Your task to perform on an android device: Open the Play Movies app and select the watchlist tab. Image 0: 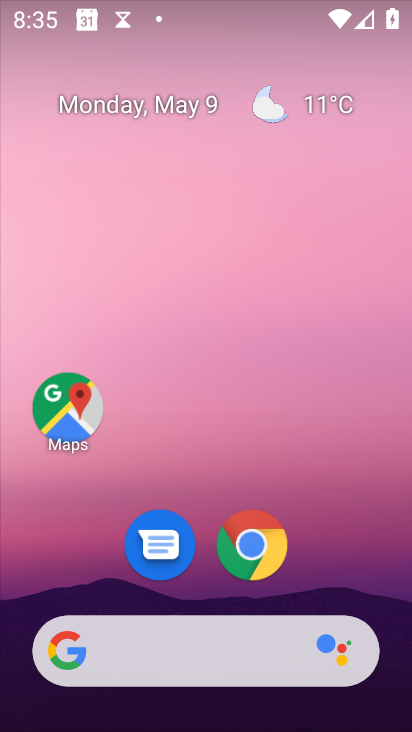
Step 0: drag from (205, 603) to (205, 32)
Your task to perform on an android device: Open the Play Movies app and select the watchlist tab. Image 1: 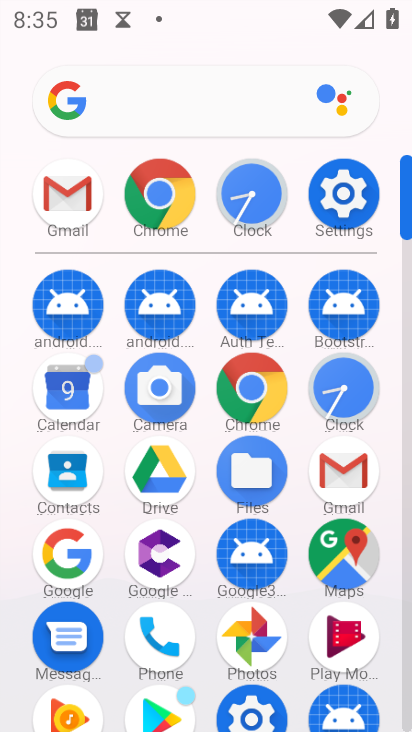
Step 1: drag from (206, 678) to (209, 316)
Your task to perform on an android device: Open the Play Movies app and select the watchlist tab. Image 2: 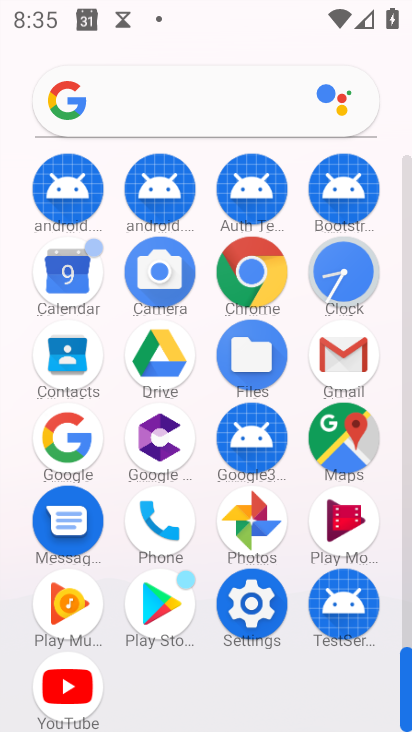
Step 2: click (340, 523)
Your task to perform on an android device: Open the Play Movies app and select the watchlist tab. Image 3: 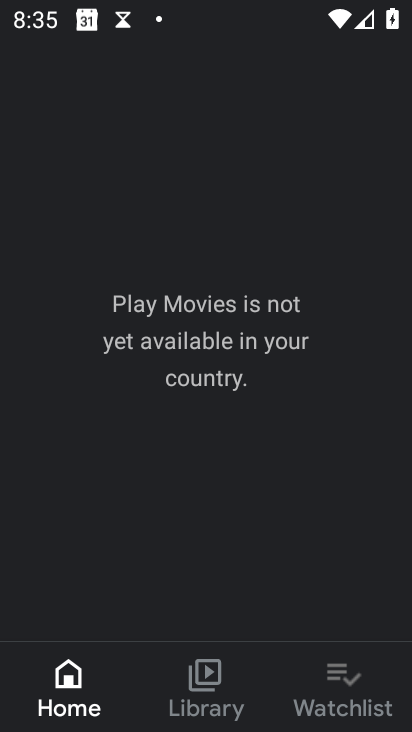
Step 3: click (352, 696)
Your task to perform on an android device: Open the Play Movies app and select the watchlist tab. Image 4: 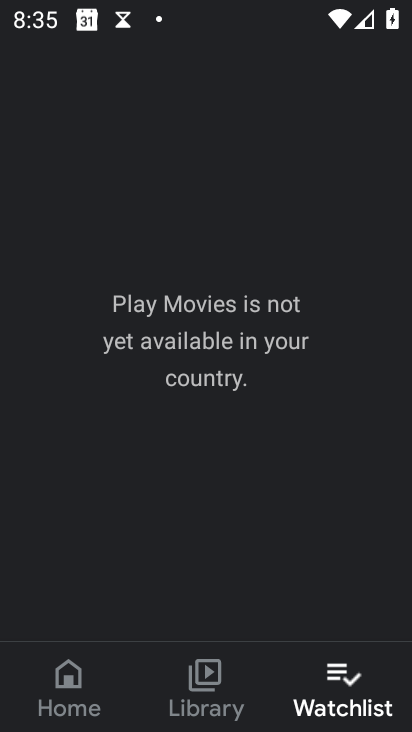
Step 4: task complete